Your task to perform on an android device: Open calendar and show me the third week of next month Image 0: 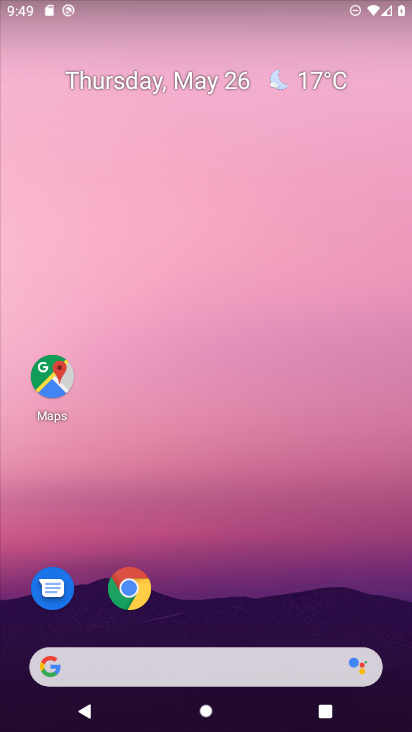
Step 0: drag from (340, 464) to (288, 34)
Your task to perform on an android device: Open calendar and show me the third week of next month Image 1: 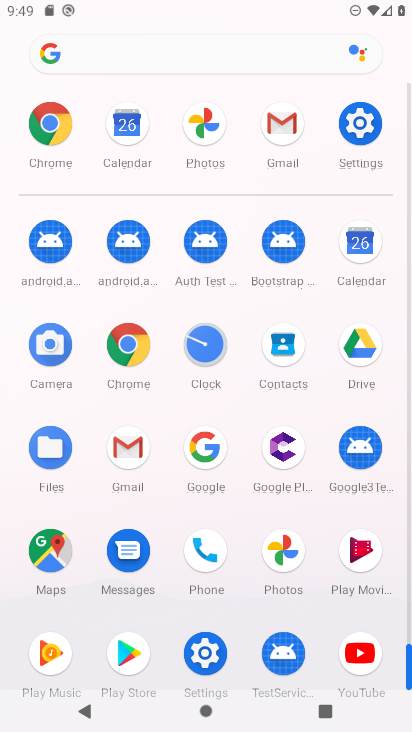
Step 1: click (362, 245)
Your task to perform on an android device: Open calendar and show me the third week of next month Image 2: 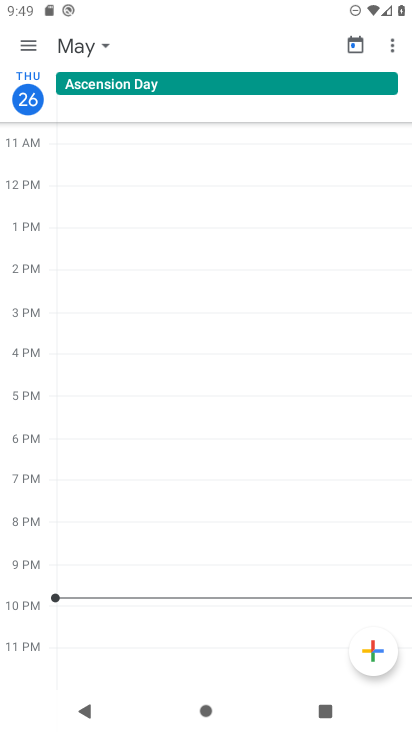
Step 2: click (27, 41)
Your task to perform on an android device: Open calendar and show me the third week of next month Image 3: 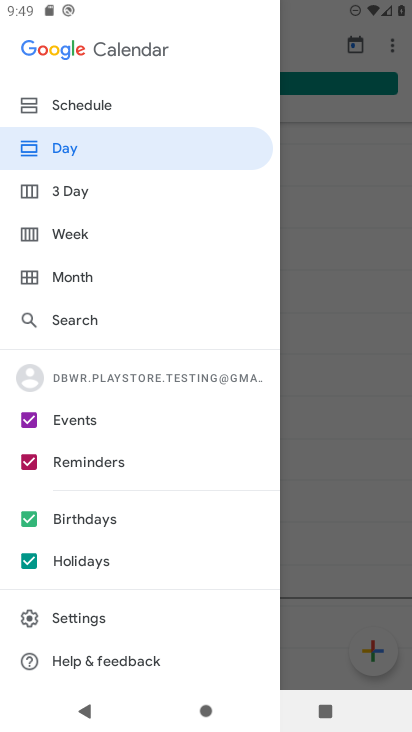
Step 3: click (76, 229)
Your task to perform on an android device: Open calendar and show me the third week of next month Image 4: 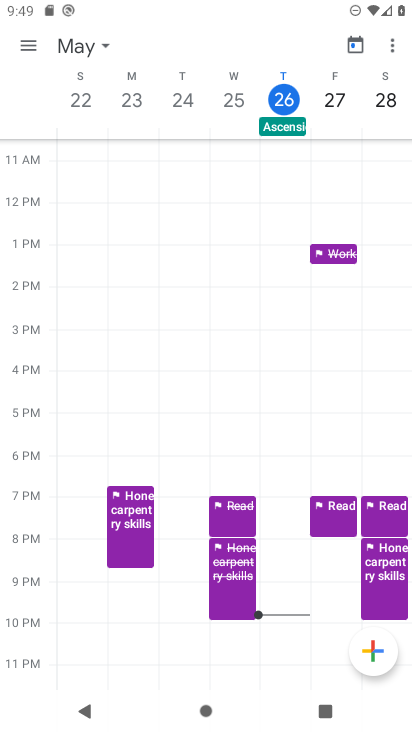
Step 4: click (101, 42)
Your task to perform on an android device: Open calendar and show me the third week of next month Image 5: 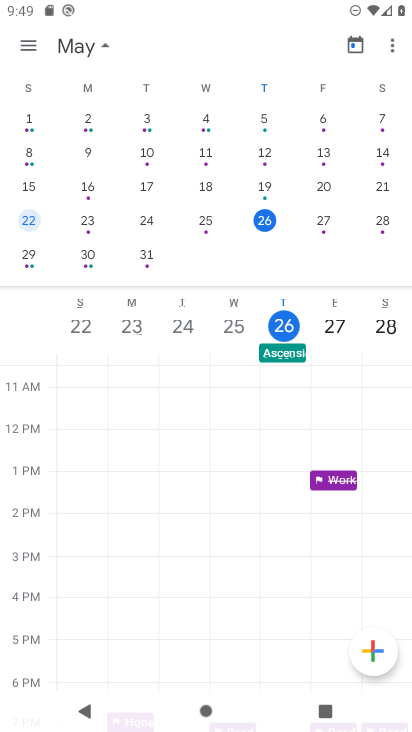
Step 5: drag from (368, 192) to (71, 196)
Your task to perform on an android device: Open calendar and show me the third week of next month Image 6: 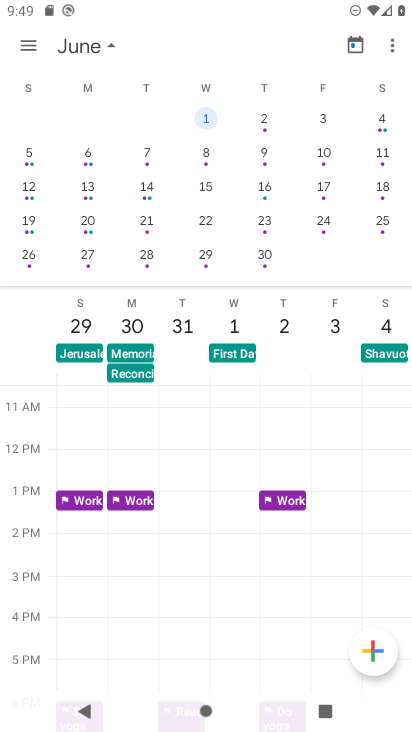
Step 6: click (25, 218)
Your task to perform on an android device: Open calendar and show me the third week of next month Image 7: 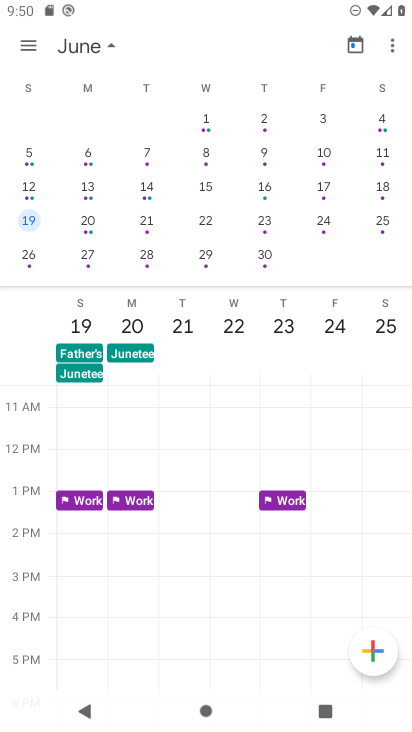
Step 7: task complete